Your task to perform on an android device: toggle notification dots Image 0: 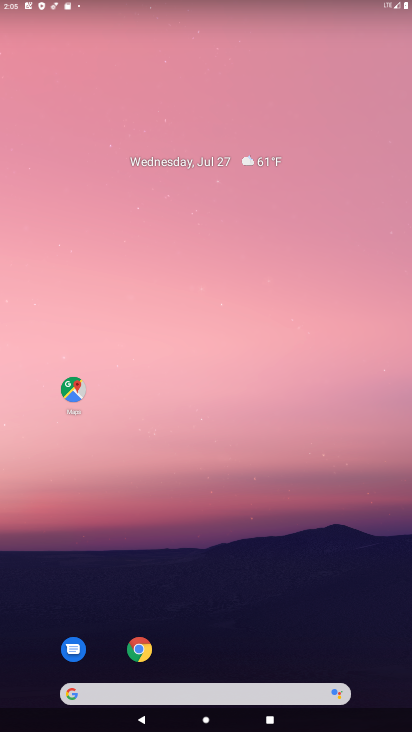
Step 0: drag from (189, 645) to (146, 167)
Your task to perform on an android device: toggle notification dots Image 1: 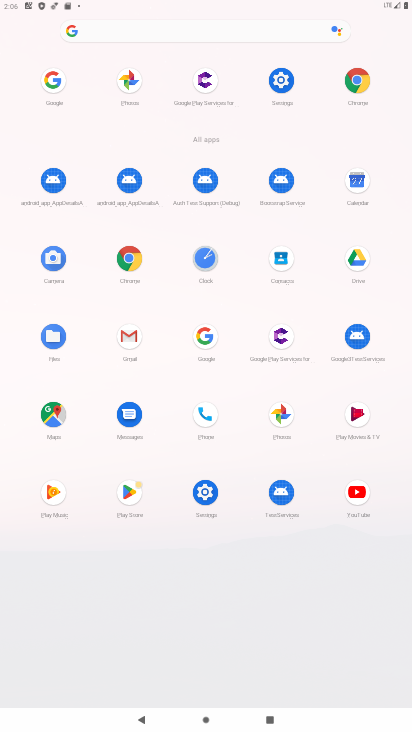
Step 1: click (280, 83)
Your task to perform on an android device: toggle notification dots Image 2: 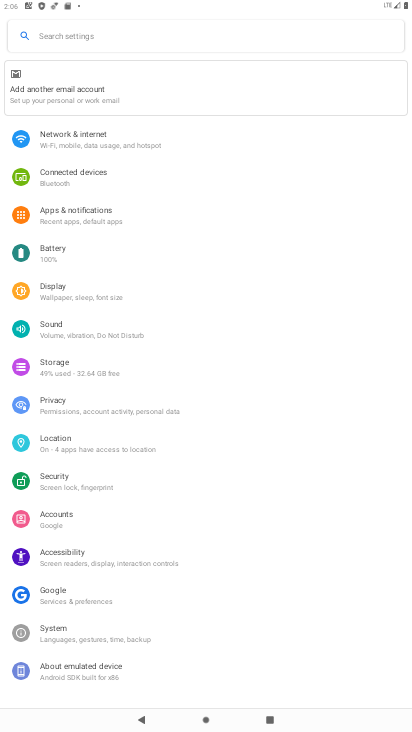
Step 2: click (49, 213)
Your task to perform on an android device: toggle notification dots Image 3: 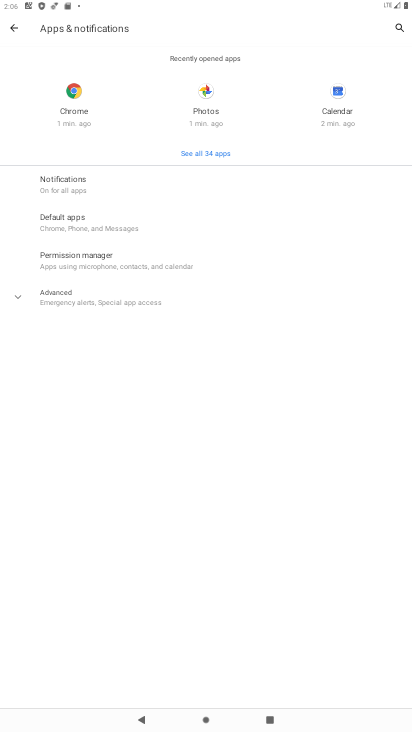
Step 3: click (68, 185)
Your task to perform on an android device: toggle notification dots Image 4: 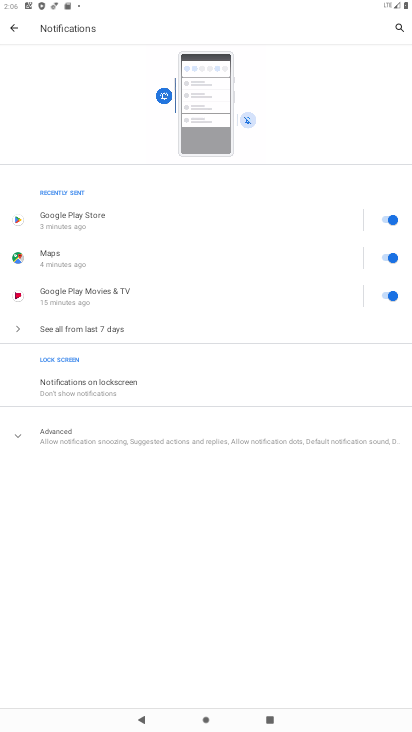
Step 4: click (60, 432)
Your task to perform on an android device: toggle notification dots Image 5: 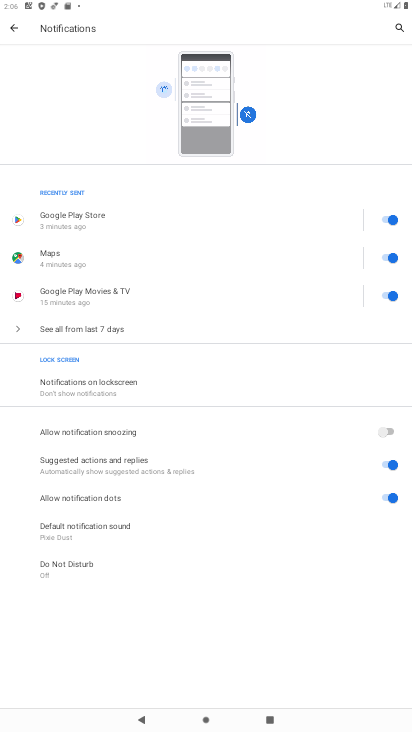
Step 5: click (388, 496)
Your task to perform on an android device: toggle notification dots Image 6: 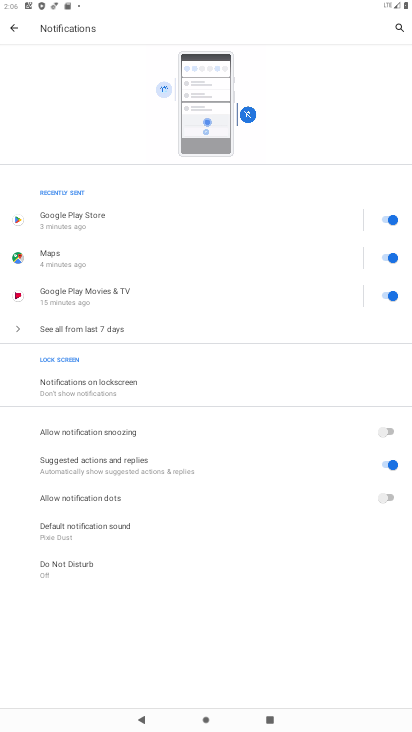
Step 6: task complete